Your task to perform on an android device: When is my next meeting? Image 0: 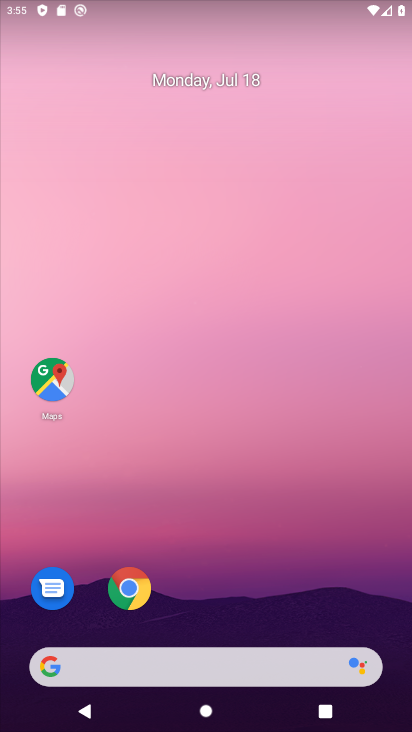
Step 0: click (172, 88)
Your task to perform on an android device: When is my next meeting? Image 1: 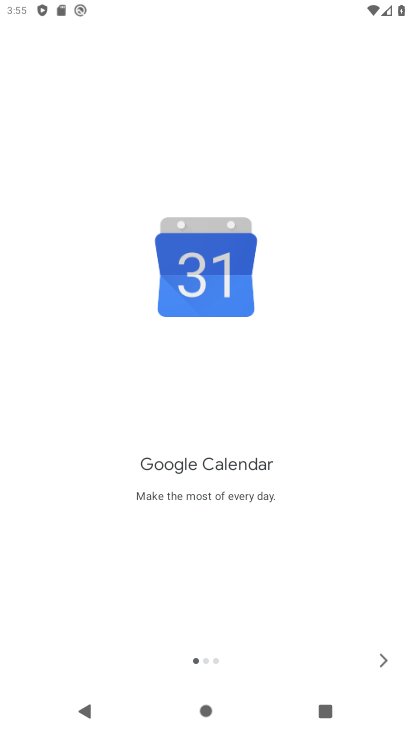
Step 1: click (377, 664)
Your task to perform on an android device: When is my next meeting? Image 2: 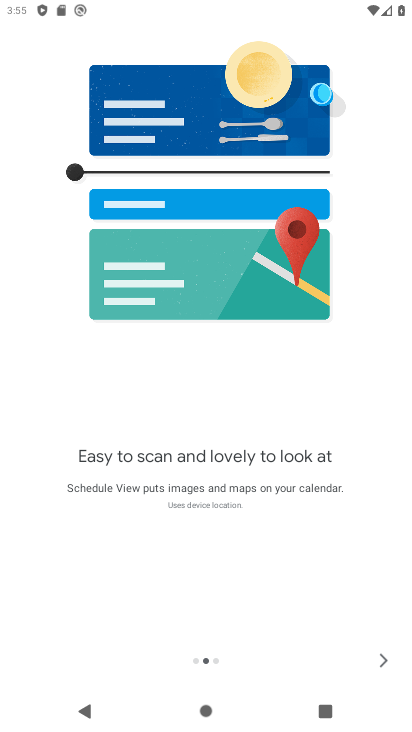
Step 2: click (377, 664)
Your task to perform on an android device: When is my next meeting? Image 3: 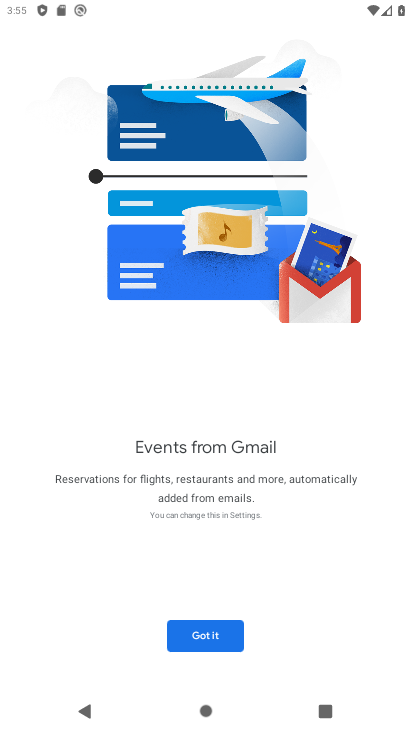
Step 3: click (198, 646)
Your task to perform on an android device: When is my next meeting? Image 4: 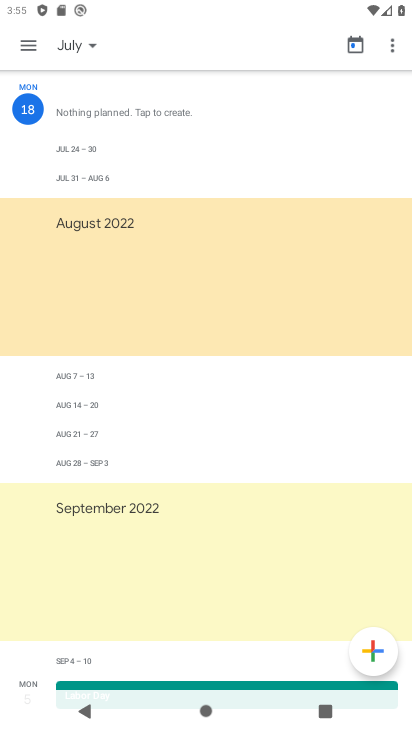
Step 4: task complete